Your task to perform on an android device: What's the weather? Image 0: 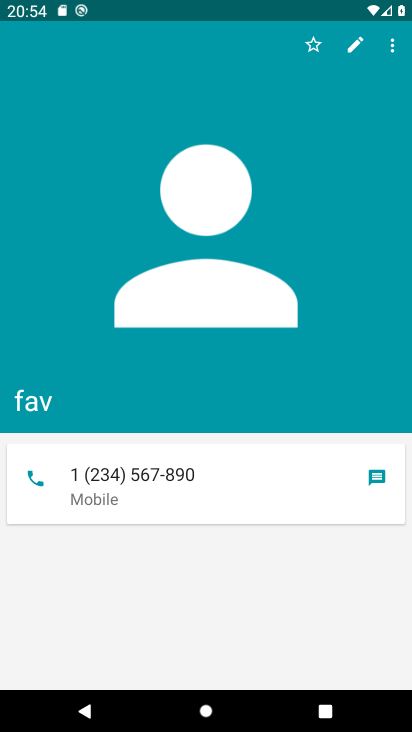
Step 0: press home button
Your task to perform on an android device: What's the weather? Image 1: 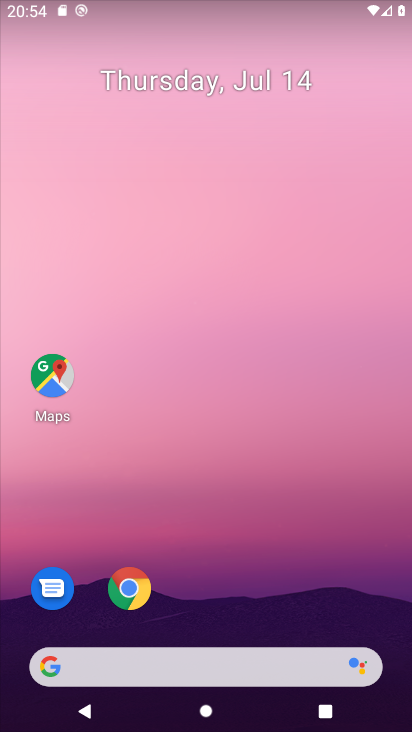
Step 1: click (221, 655)
Your task to perform on an android device: What's the weather? Image 2: 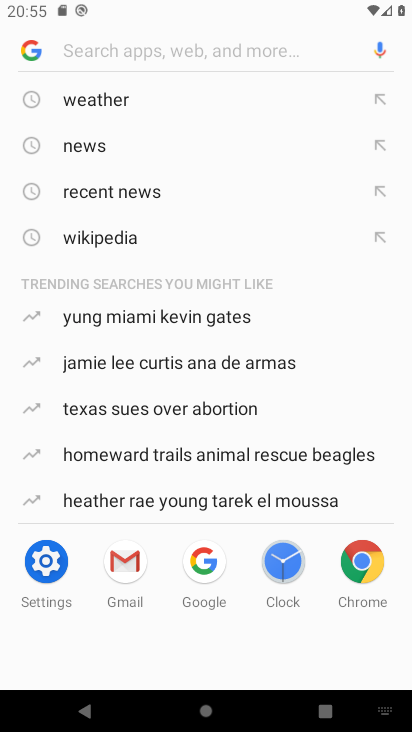
Step 2: click (124, 101)
Your task to perform on an android device: What's the weather? Image 3: 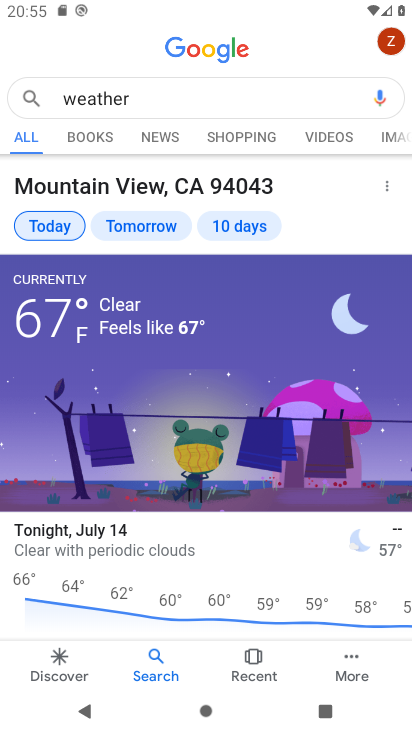
Step 3: task complete